Your task to perform on an android device: set the stopwatch Image 0: 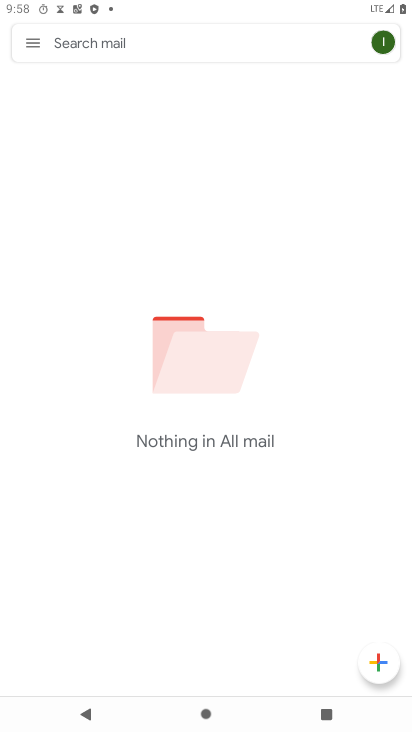
Step 0: press home button
Your task to perform on an android device: set the stopwatch Image 1: 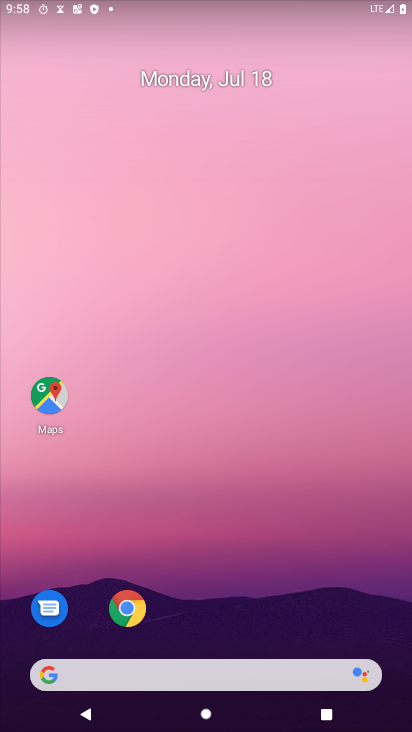
Step 1: drag from (159, 610) to (187, 184)
Your task to perform on an android device: set the stopwatch Image 2: 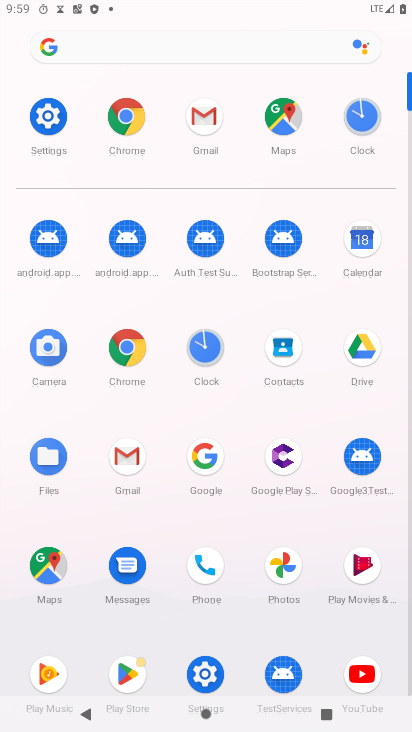
Step 2: click (210, 351)
Your task to perform on an android device: set the stopwatch Image 3: 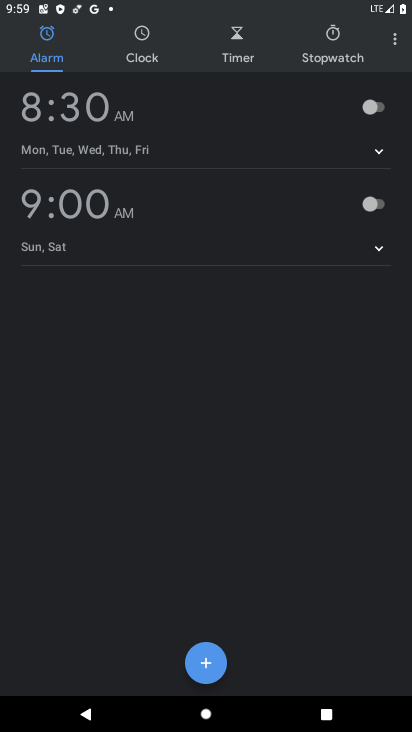
Step 3: click (210, 351)
Your task to perform on an android device: set the stopwatch Image 4: 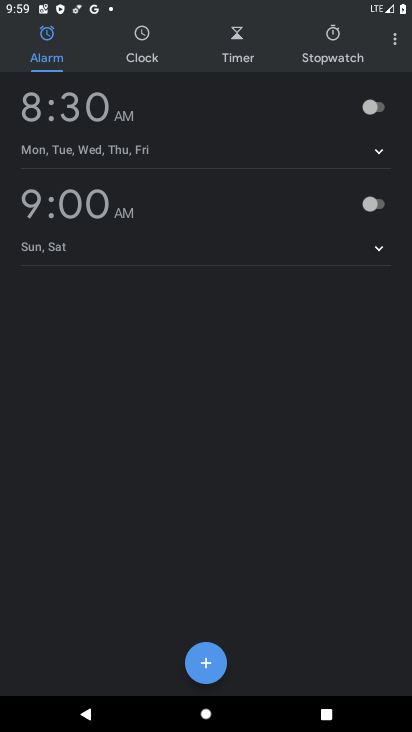
Step 4: click (321, 52)
Your task to perform on an android device: set the stopwatch Image 5: 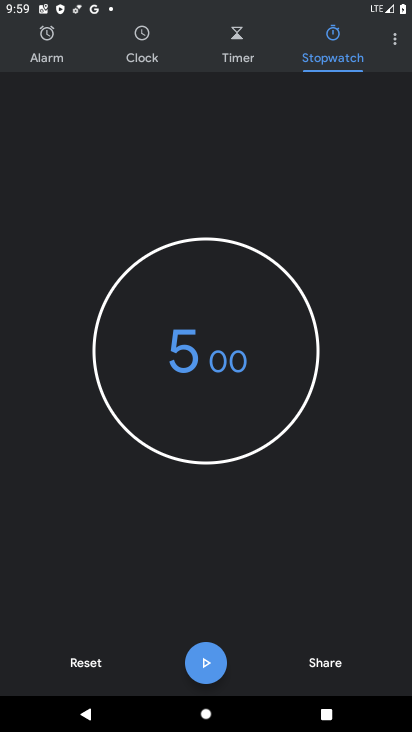
Step 5: click (209, 667)
Your task to perform on an android device: set the stopwatch Image 6: 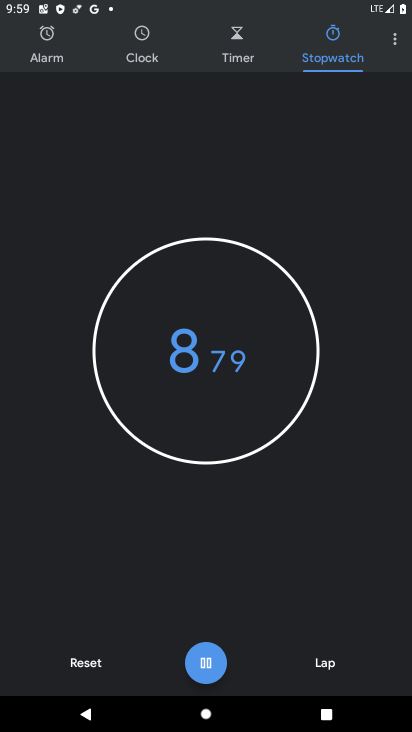
Step 6: click (209, 667)
Your task to perform on an android device: set the stopwatch Image 7: 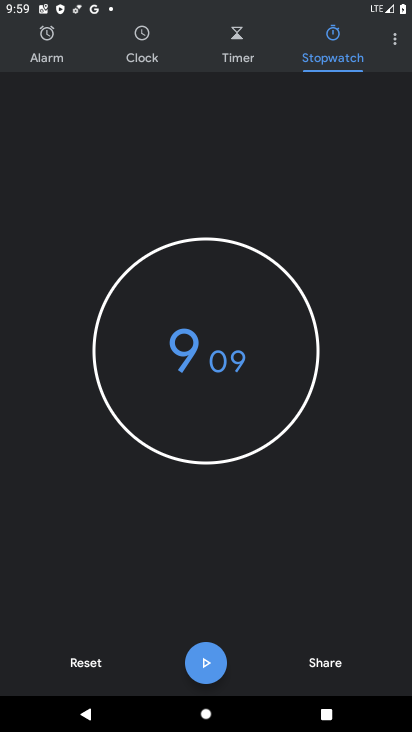
Step 7: task complete